Your task to perform on an android device: Open calendar and show me the fourth week of next month Image 0: 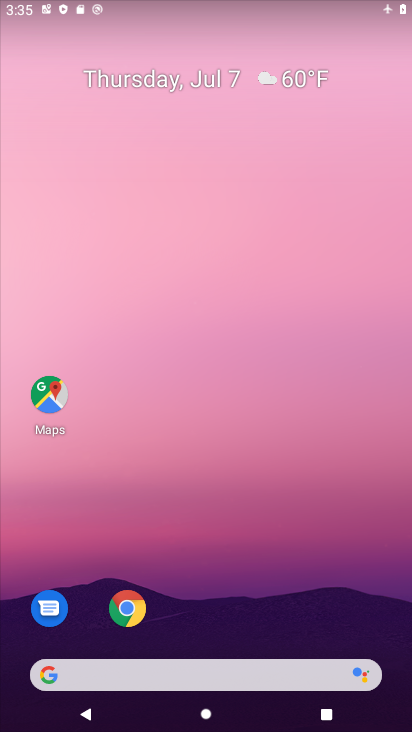
Step 0: drag from (282, 10) to (202, 426)
Your task to perform on an android device: Open calendar and show me the fourth week of next month Image 1: 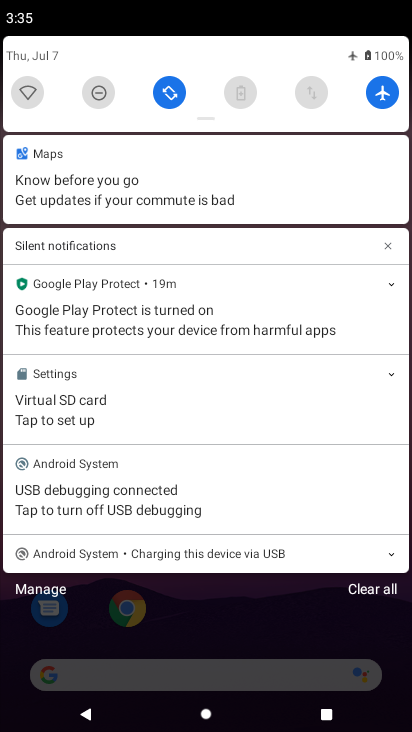
Step 1: click (375, 101)
Your task to perform on an android device: Open calendar and show me the fourth week of next month Image 2: 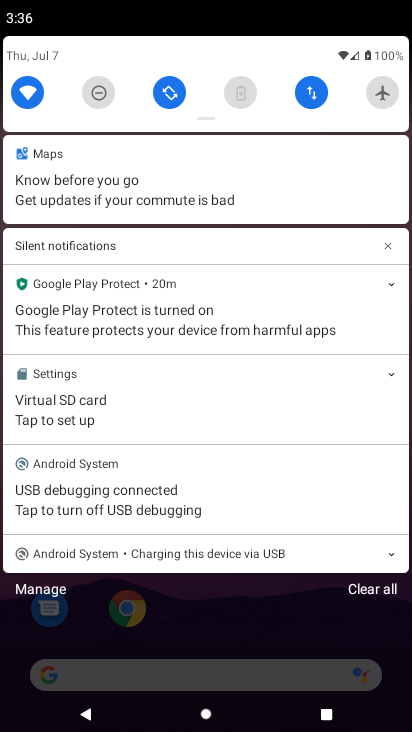
Step 2: press home button
Your task to perform on an android device: Open calendar and show me the fourth week of next month Image 3: 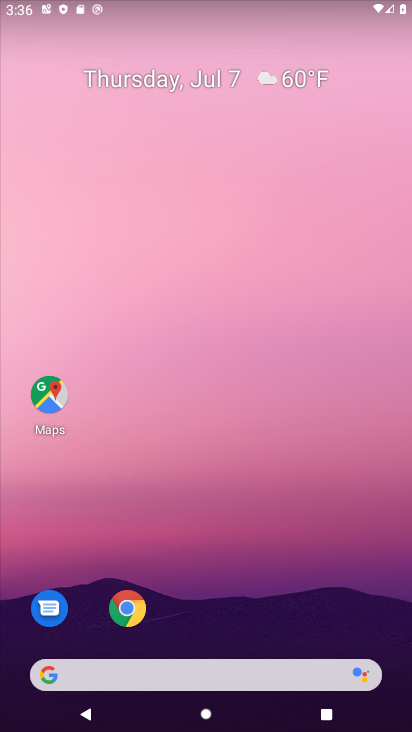
Step 3: drag from (199, 665) to (160, 233)
Your task to perform on an android device: Open calendar and show me the fourth week of next month Image 4: 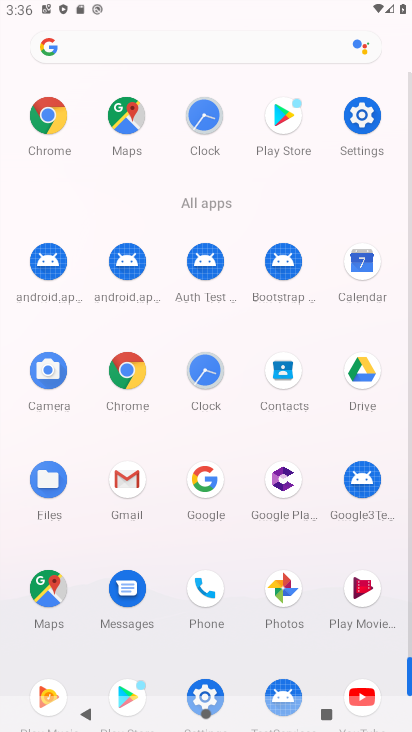
Step 4: click (357, 274)
Your task to perform on an android device: Open calendar and show me the fourth week of next month Image 5: 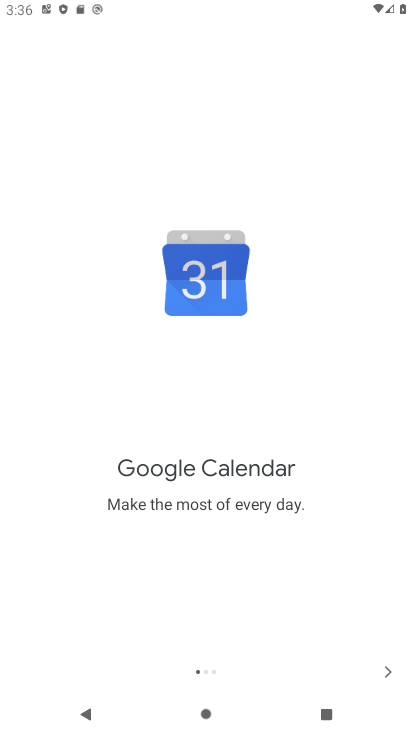
Step 5: click (382, 671)
Your task to perform on an android device: Open calendar and show me the fourth week of next month Image 6: 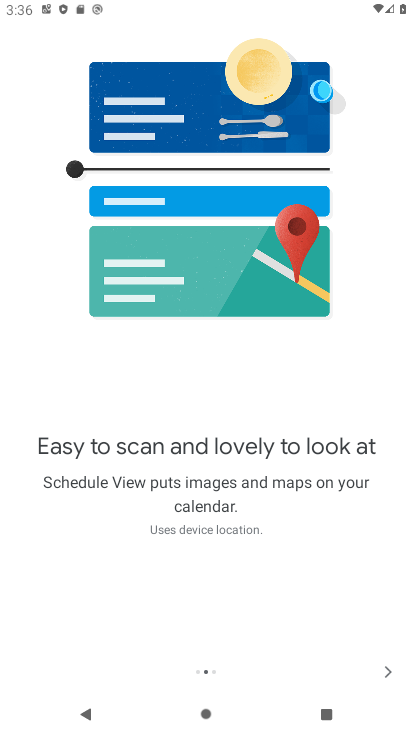
Step 6: click (388, 669)
Your task to perform on an android device: Open calendar and show me the fourth week of next month Image 7: 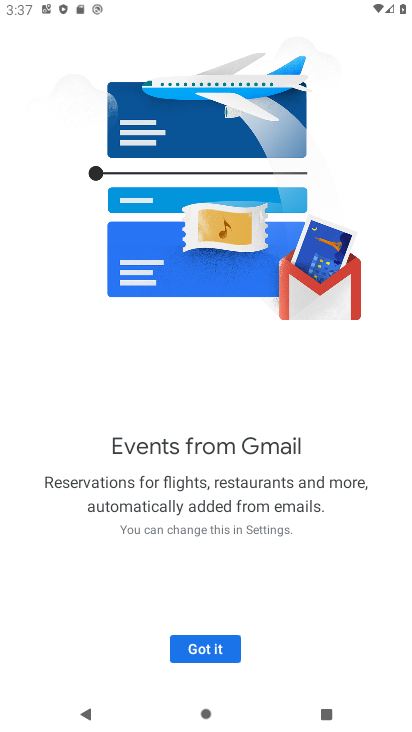
Step 7: click (197, 653)
Your task to perform on an android device: Open calendar and show me the fourth week of next month Image 8: 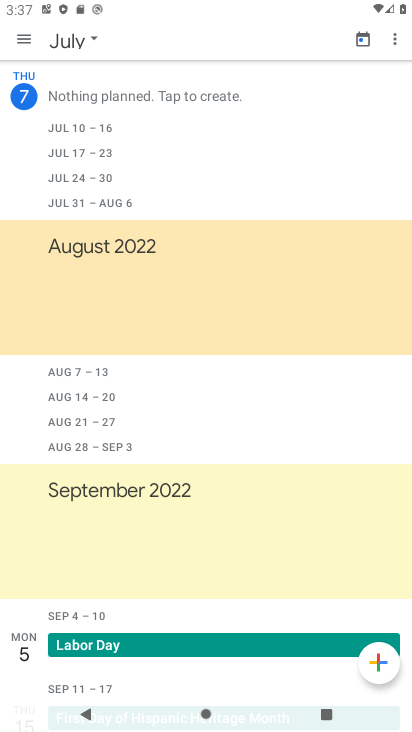
Step 8: click (31, 39)
Your task to perform on an android device: Open calendar and show me the fourth week of next month Image 9: 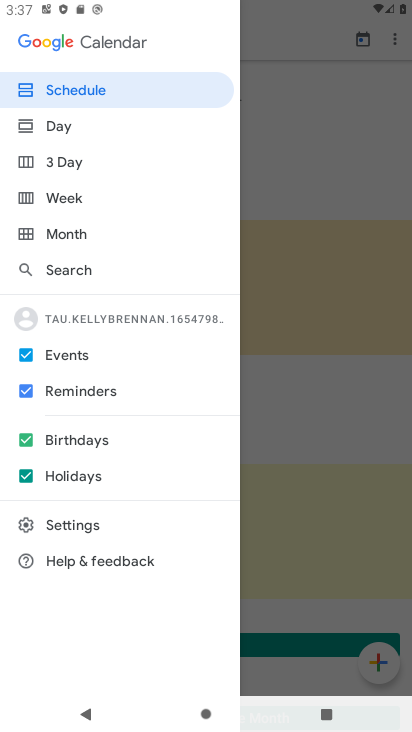
Step 9: click (97, 234)
Your task to perform on an android device: Open calendar and show me the fourth week of next month Image 10: 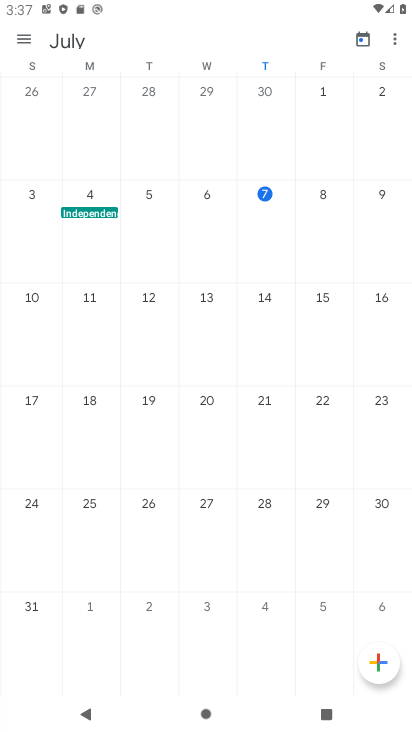
Step 10: task complete